Your task to perform on an android device: set an alarm Image 0: 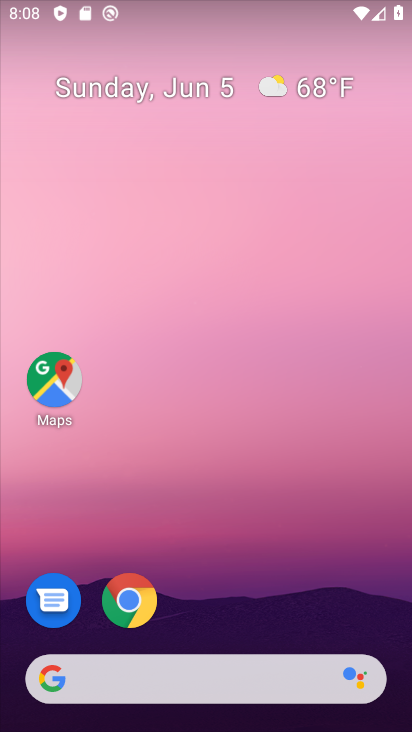
Step 0: drag from (345, 546) to (303, 36)
Your task to perform on an android device: set an alarm Image 1: 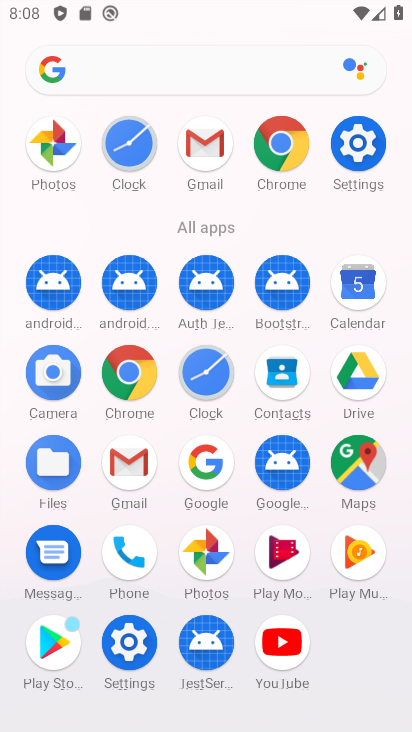
Step 1: click (217, 383)
Your task to perform on an android device: set an alarm Image 2: 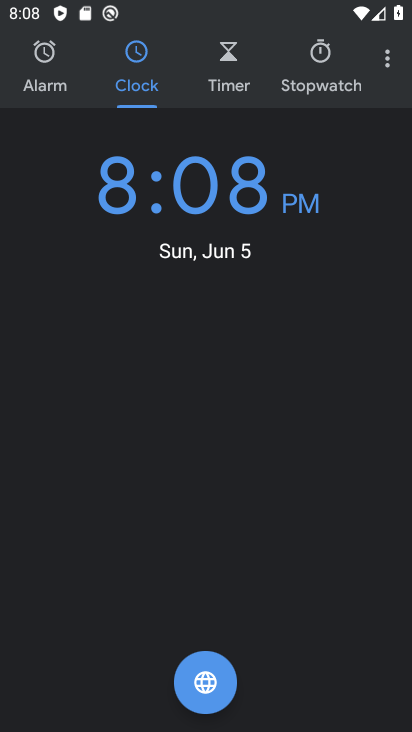
Step 2: click (31, 48)
Your task to perform on an android device: set an alarm Image 3: 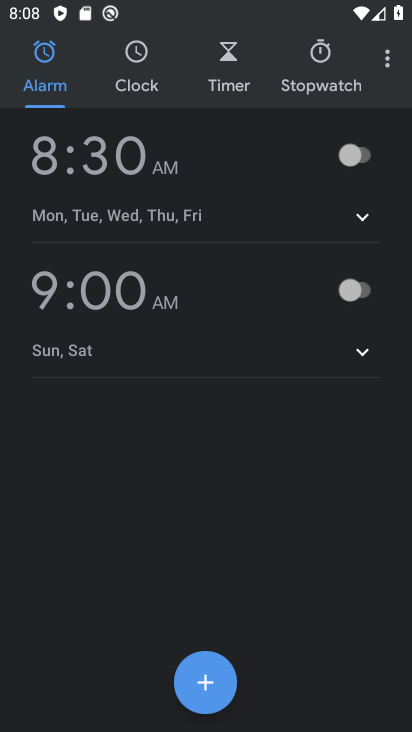
Step 3: click (385, 151)
Your task to perform on an android device: set an alarm Image 4: 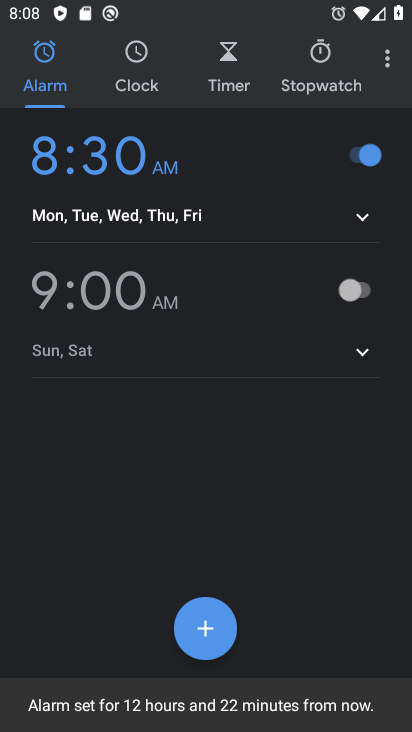
Step 4: task complete